Your task to perform on an android device: Do I have any events tomorrow? Image 0: 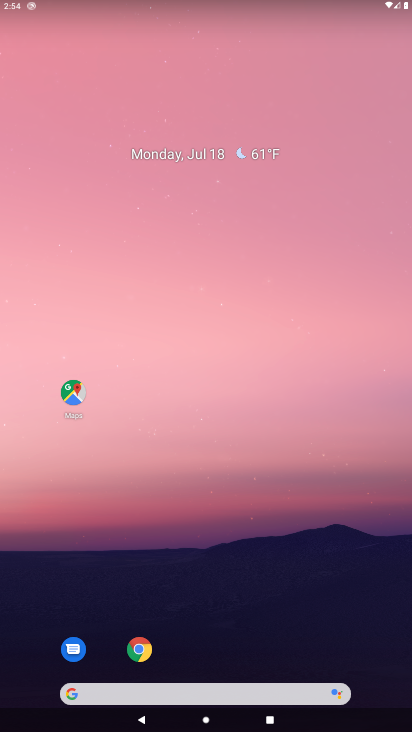
Step 0: drag from (65, 586) to (169, 194)
Your task to perform on an android device: Do I have any events tomorrow? Image 1: 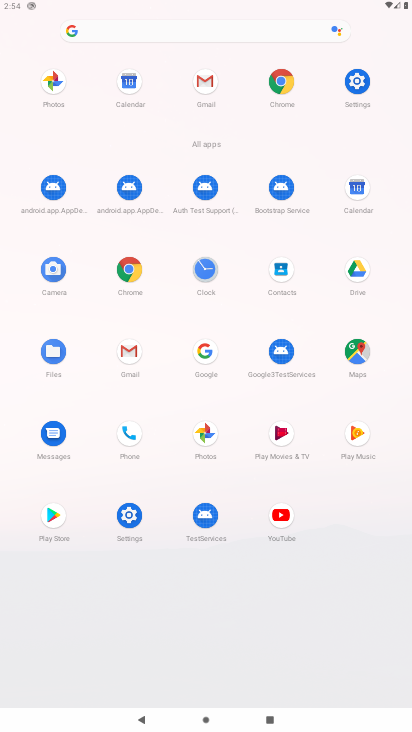
Step 1: click (348, 188)
Your task to perform on an android device: Do I have any events tomorrow? Image 2: 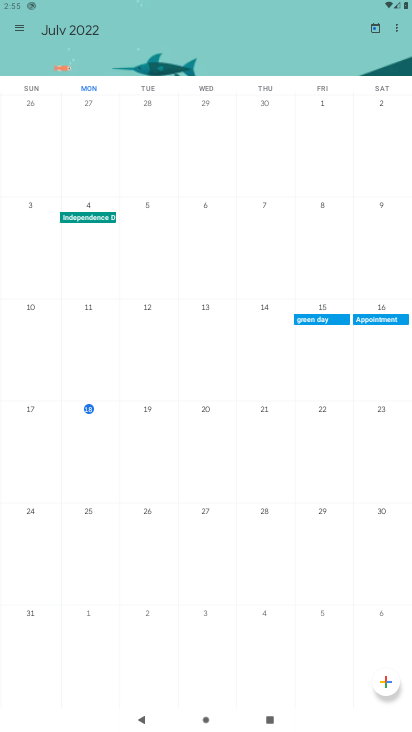
Step 2: task complete